Your task to perform on an android device: toggle data saver in the chrome app Image 0: 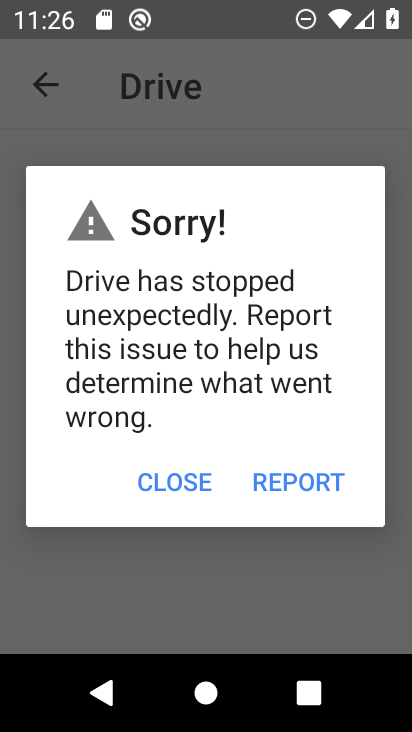
Step 0: press home button
Your task to perform on an android device: toggle data saver in the chrome app Image 1: 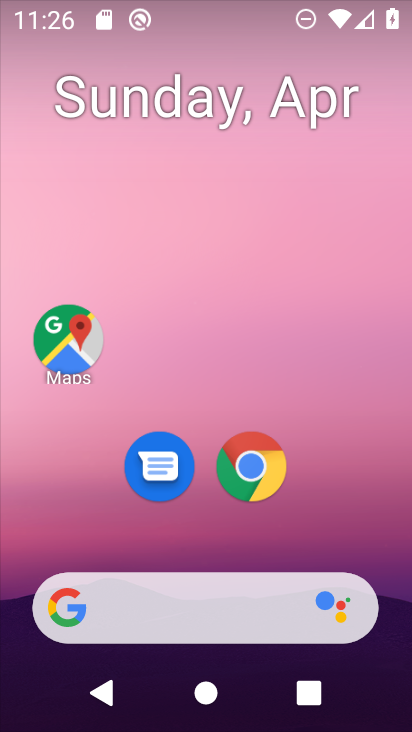
Step 1: drag from (356, 523) to (381, 125)
Your task to perform on an android device: toggle data saver in the chrome app Image 2: 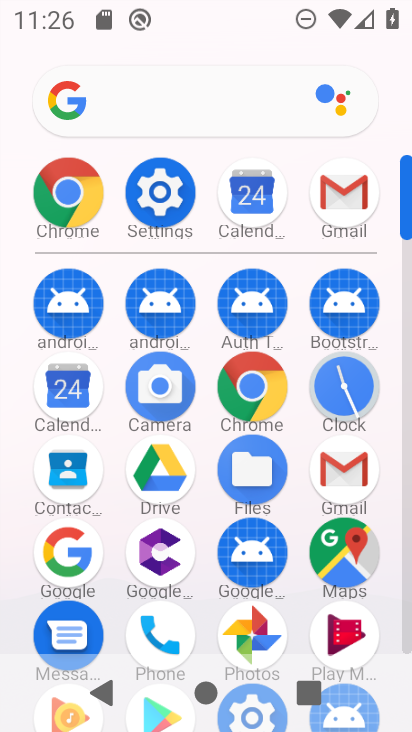
Step 2: click (255, 392)
Your task to perform on an android device: toggle data saver in the chrome app Image 3: 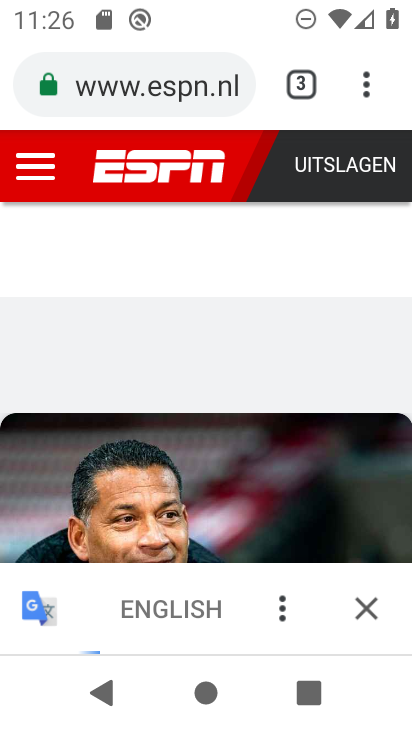
Step 3: click (373, 75)
Your task to perform on an android device: toggle data saver in the chrome app Image 4: 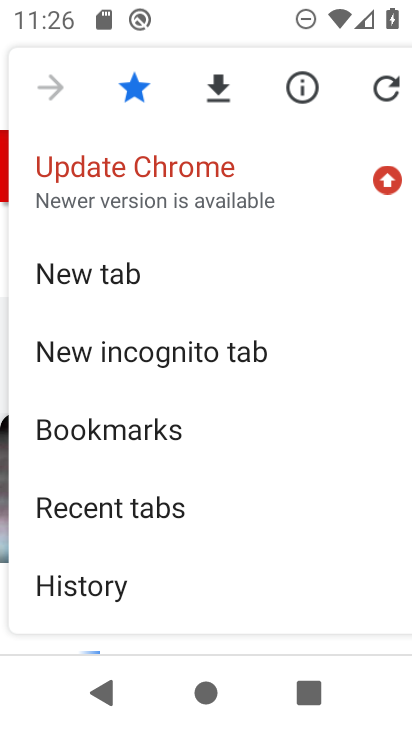
Step 4: drag from (308, 542) to (312, 383)
Your task to perform on an android device: toggle data saver in the chrome app Image 5: 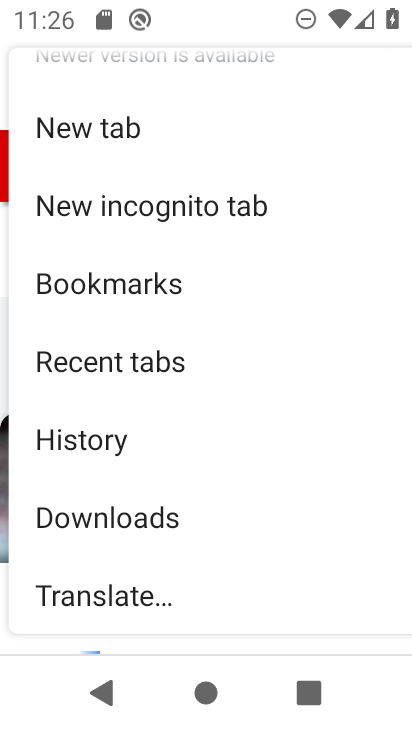
Step 5: drag from (288, 559) to (297, 323)
Your task to perform on an android device: toggle data saver in the chrome app Image 6: 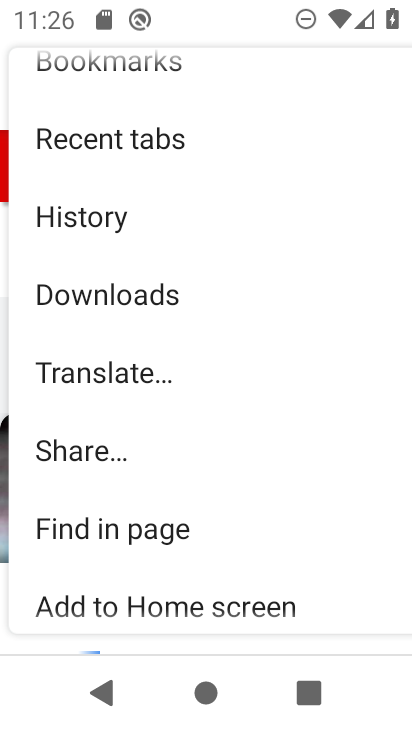
Step 6: drag from (281, 511) to (302, 246)
Your task to perform on an android device: toggle data saver in the chrome app Image 7: 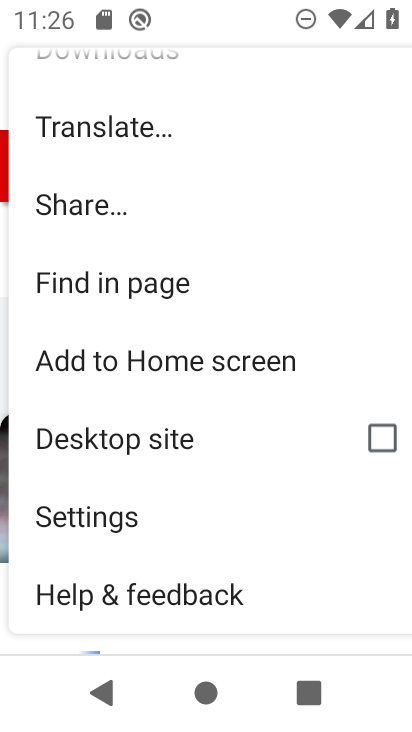
Step 7: click (106, 513)
Your task to perform on an android device: toggle data saver in the chrome app Image 8: 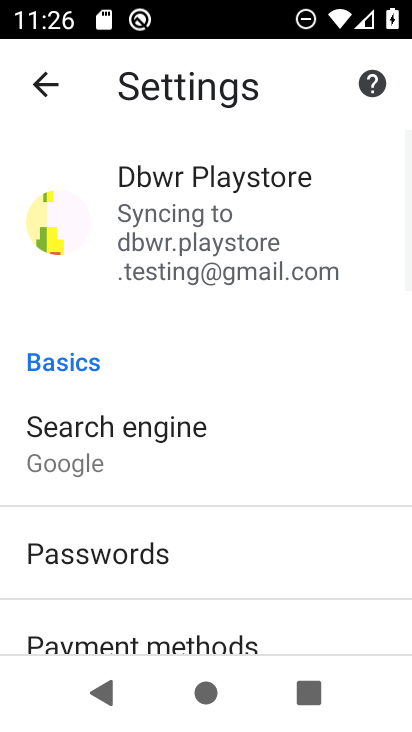
Step 8: drag from (294, 535) to (318, 387)
Your task to perform on an android device: toggle data saver in the chrome app Image 9: 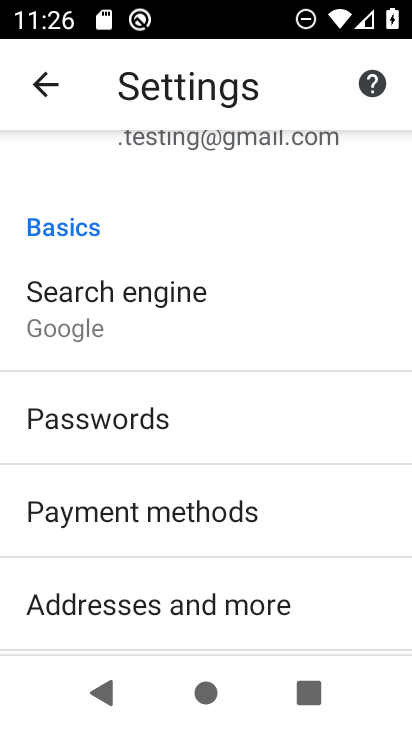
Step 9: drag from (348, 586) to (340, 410)
Your task to perform on an android device: toggle data saver in the chrome app Image 10: 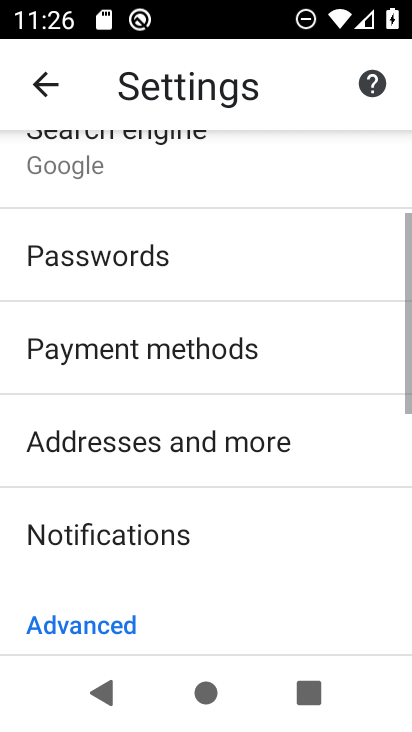
Step 10: drag from (338, 576) to (342, 413)
Your task to perform on an android device: toggle data saver in the chrome app Image 11: 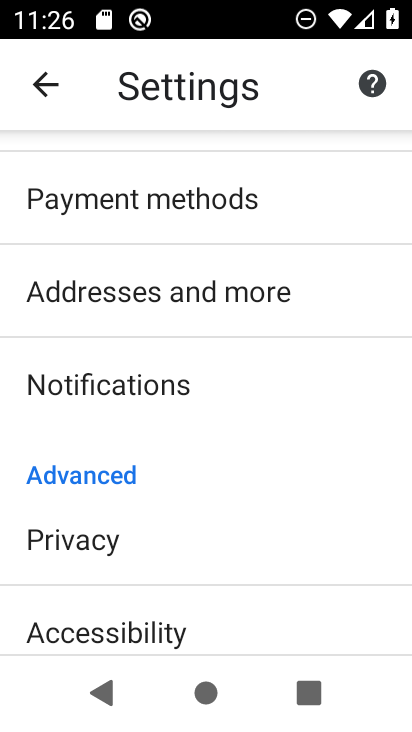
Step 11: drag from (316, 611) to (307, 439)
Your task to perform on an android device: toggle data saver in the chrome app Image 12: 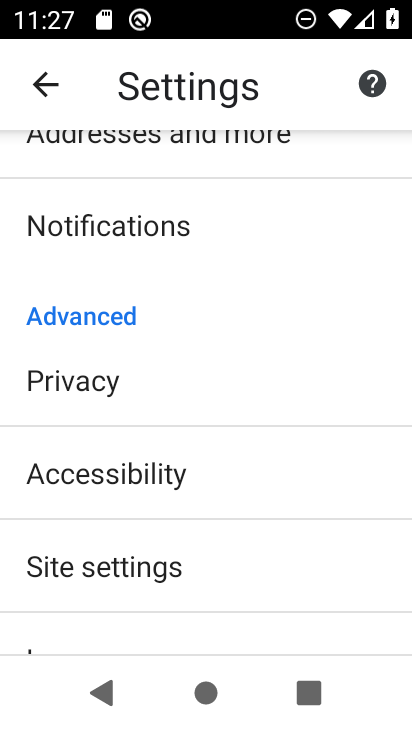
Step 12: drag from (258, 570) to (276, 324)
Your task to perform on an android device: toggle data saver in the chrome app Image 13: 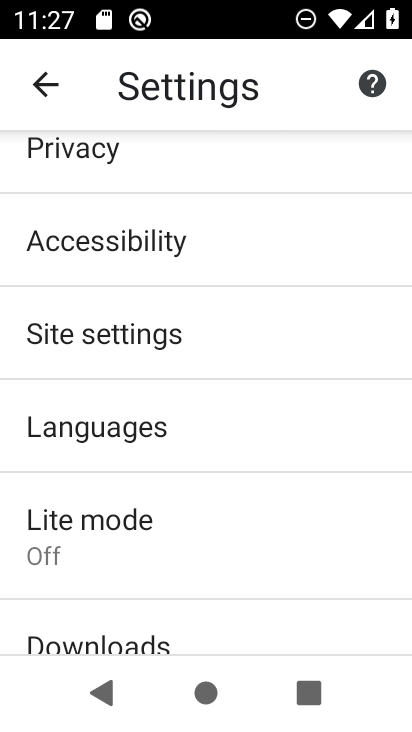
Step 13: drag from (316, 558) to (315, 442)
Your task to perform on an android device: toggle data saver in the chrome app Image 14: 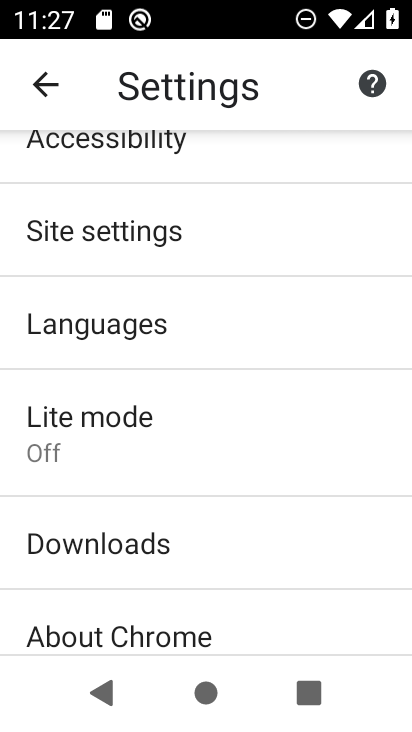
Step 14: click (119, 435)
Your task to perform on an android device: toggle data saver in the chrome app Image 15: 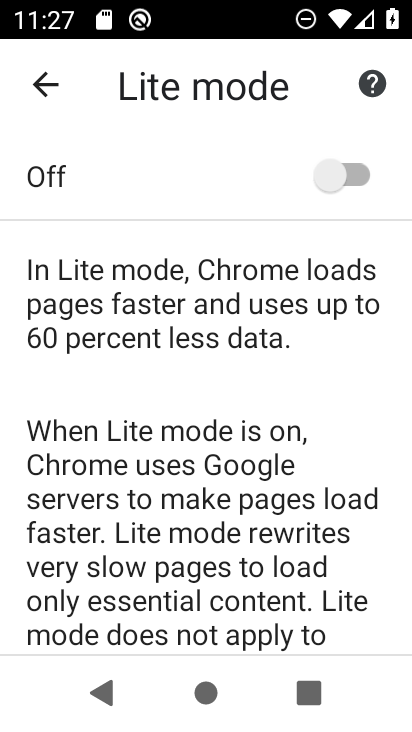
Step 15: click (349, 183)
Your task to perform on an android device: toggle data saver in the chrome app Image 16: 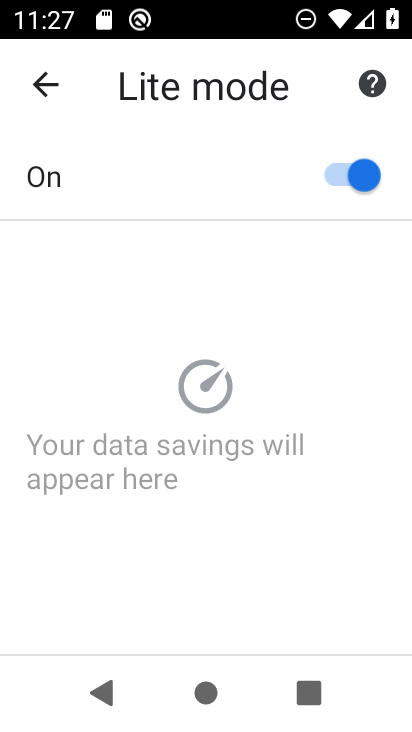
Step 16: task complete